Your task to perform on an android device: What is the news today? Image 0: 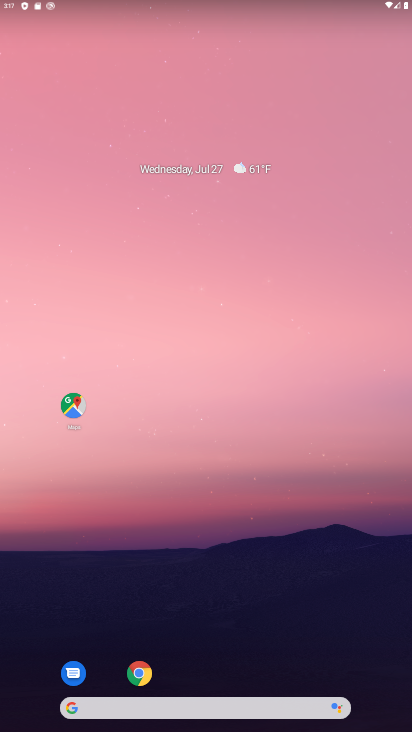
Step 0: click (162, 708)
Your task to perform on an android device: What is the news today? Image 1: 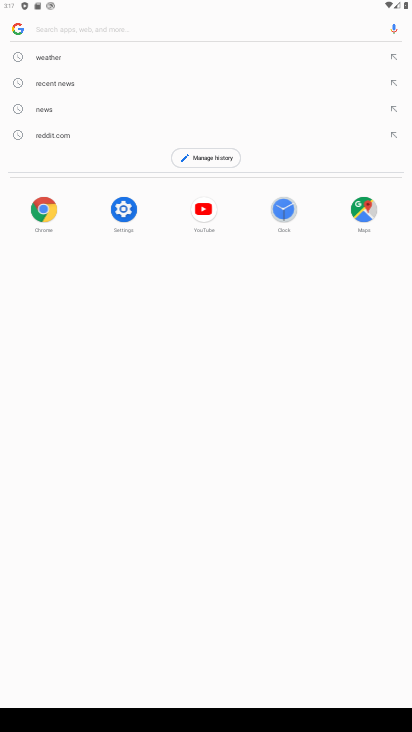
Step 1: type "news today"
Your task to perform on an android device: What is the news today? Image 2: 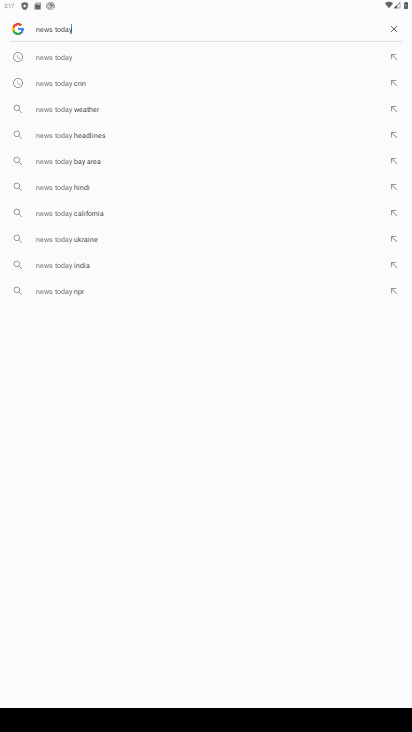
Step 2: click (82, 51)
Your task to perform on an android device: What is the news today? Image 3: 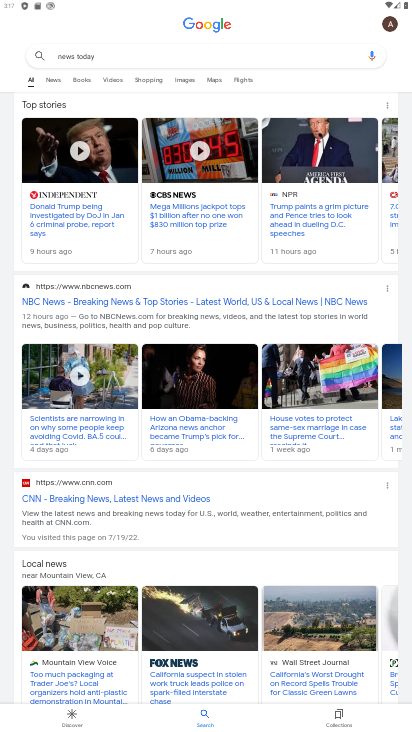
Step 3: task complete